Your task to perform on an android device: delete a single message in the gmail app Image 0: 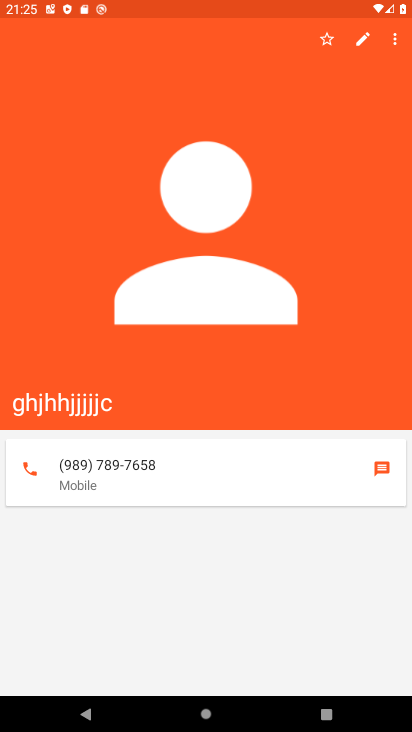
Step 0: press home button
Your task to perform on an android device: delete a single message in the gmail app Image 1: 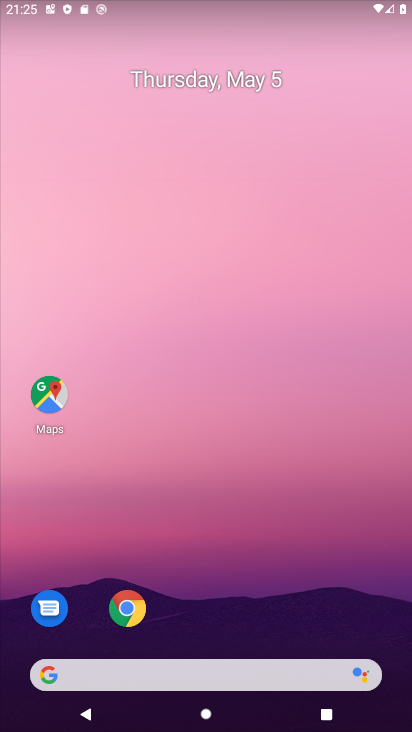
Step 1: drag from (356, 656) to (349, 68)
Your task to perform on an android device: delete a single message in the gmail app Image 2: 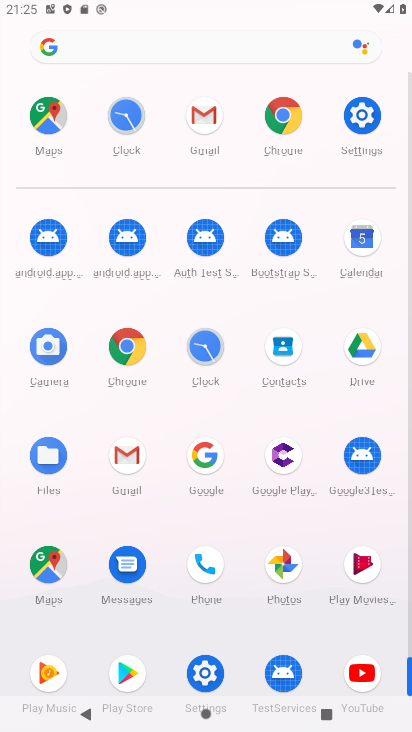
Step 2: click (116, 462)
Your task to perform on an android device: delete a single message in the gmail app Image 3: 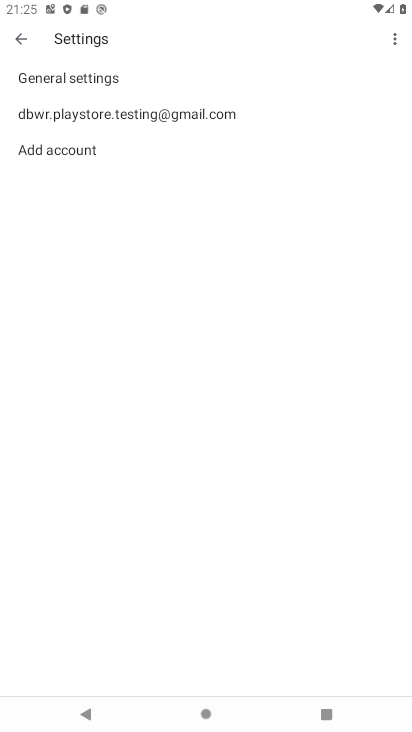
Step 3: press back button
Your task to perform on an android device: delete a single message in the gmail app Image 4: 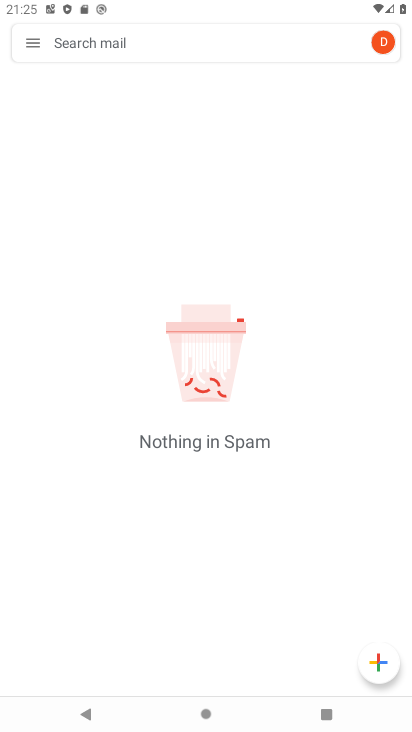
Step 4: click (37, 44)
Your task to perform on an android device: delete a single message in the gmail app Image 5: 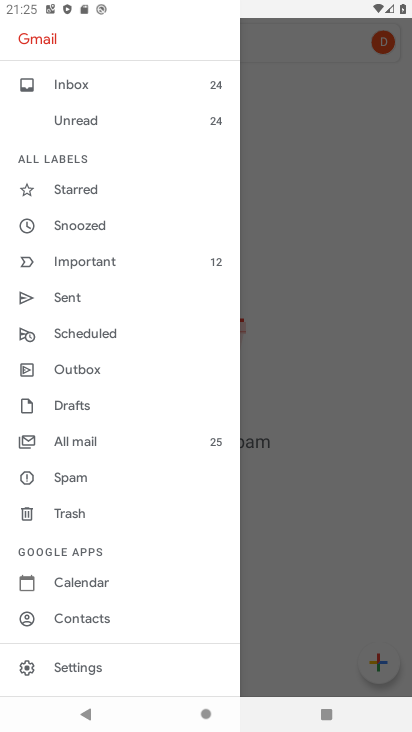
Step 5: drag from (127, 282) to (151, 616)
Your task to perform on an android device: delete a single message in the gmail app Image 6: 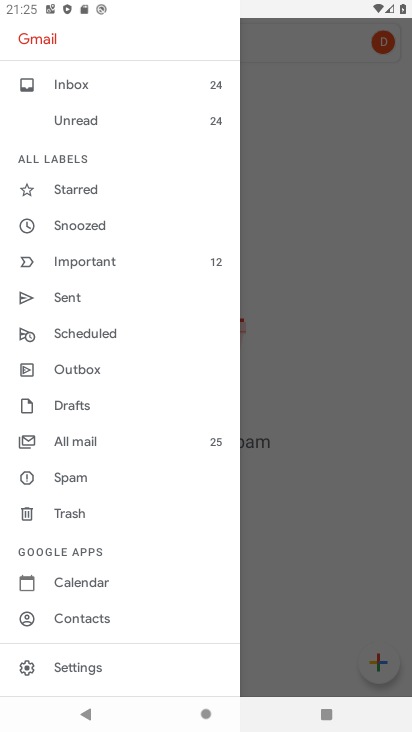
Step 6: drag from (169, 666) to (151, 171)
Your task to perform on an android device: delete a single message in the gmail app Image 7: 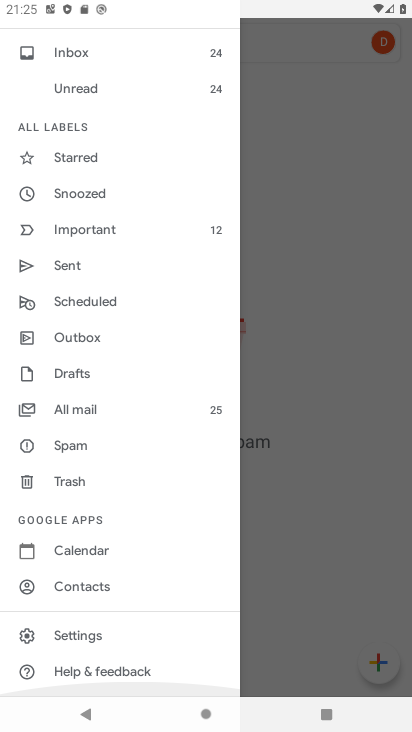
Step 7: drag from (143, 179) to (150, 573)
Your task to perform on an android device: delete a single message in the gmail app Image 8: 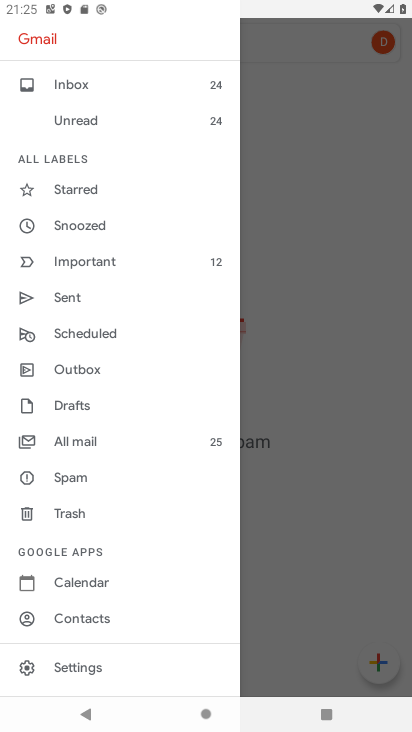
Step 8: click (102, 75)
Your task to perform on an android device: delete a single message in the gmail app Image 9: 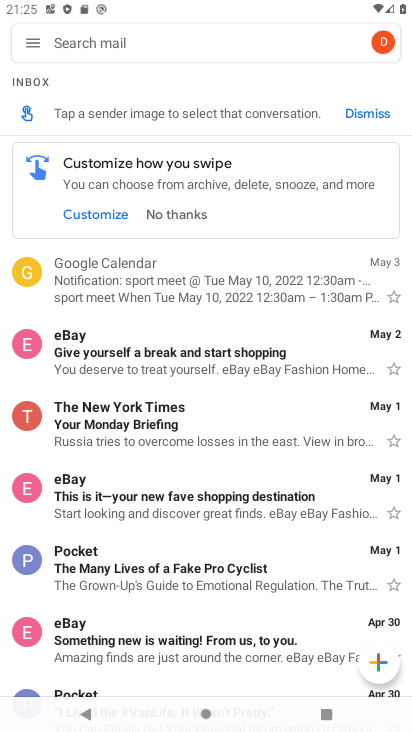
Step 9: click (248, 281)
Your task to perform on an android device: delete a single message in the gmail app Image 10: 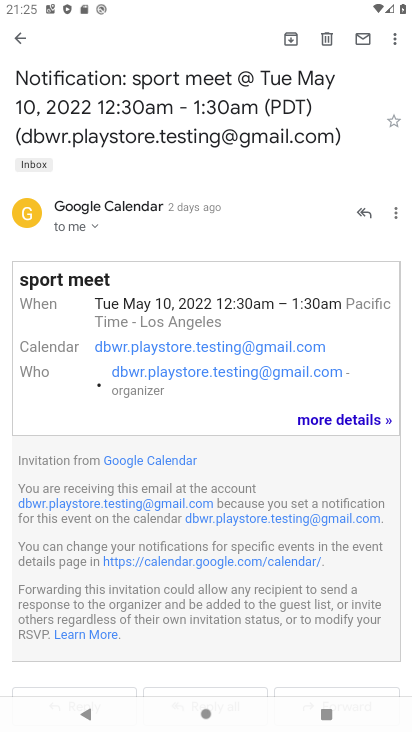
Step 10: click (393, 34)
Your task to perform on an android device: delete a single message in the gmail app Image 11: 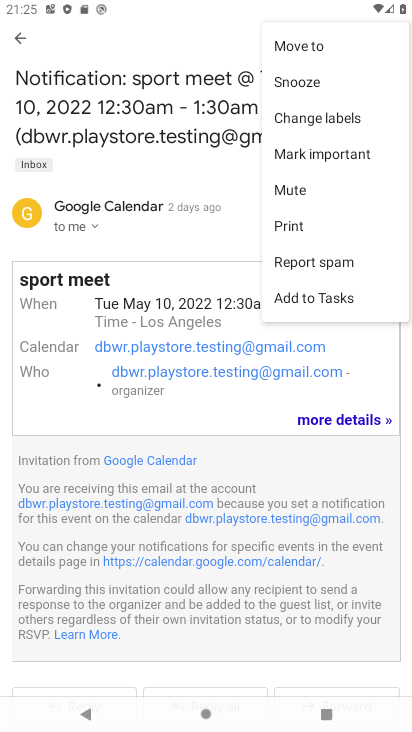
Step 11: click (157, 38)
Your task to perform on an android device: delete a single message in the gmail app Image 12: 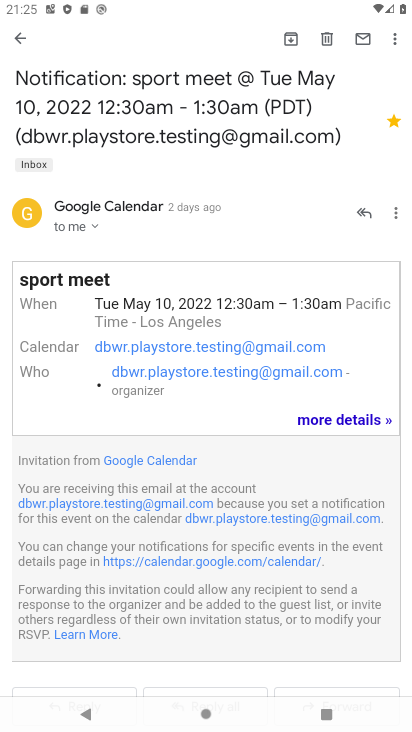
Step 12: click (325, 38)
Your task to perform on an android device: delete a single message in the gmail app Image 13: 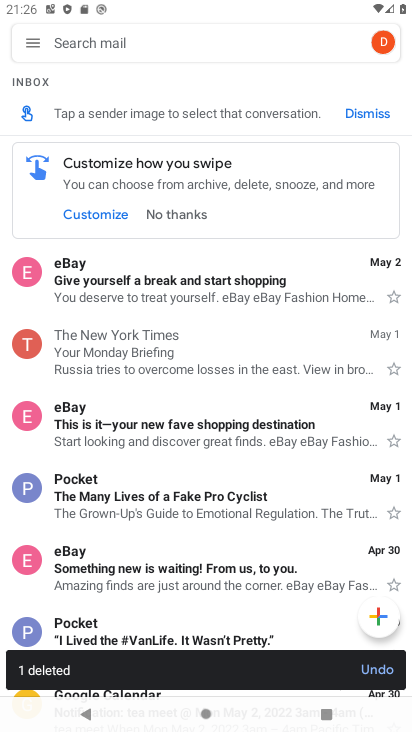
Step 13: task complete